Your task to perform on an android device: Go to Amazon Image 0: 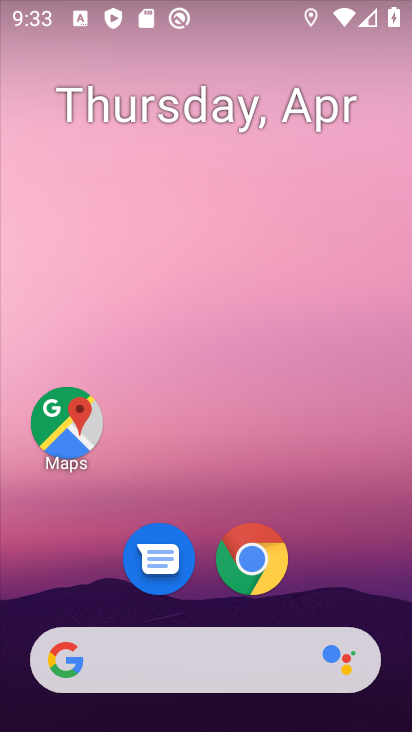
Step 0: click (266, 665)
Your task to perform on an android device: Go to Amazon Image 1: 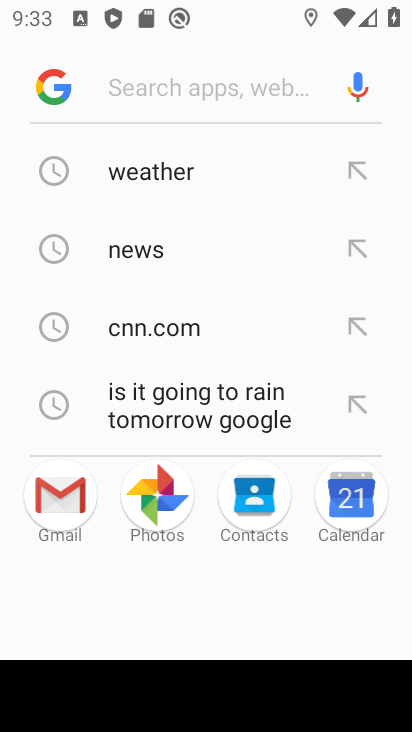
Step 1: type "amazon"
Your task to perform on an android device: Go to Amazon Image 2: 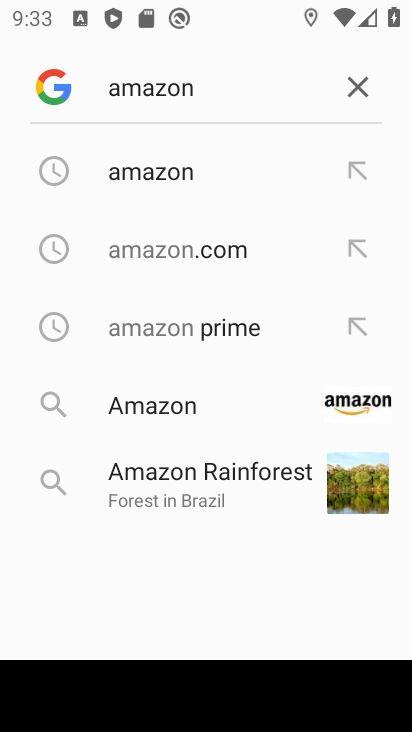
Step 2: click (263, 249)
Your task to perform on an android device: Go to Amazon Image 3: 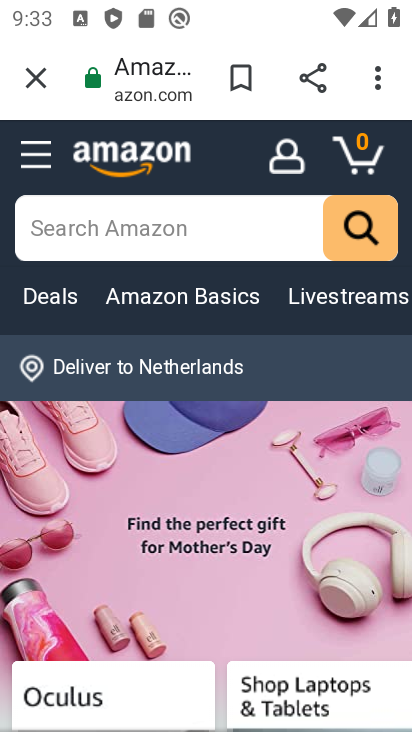
Step 3: task complete